Your task to perform on an android device: What is the news today? Image 0: 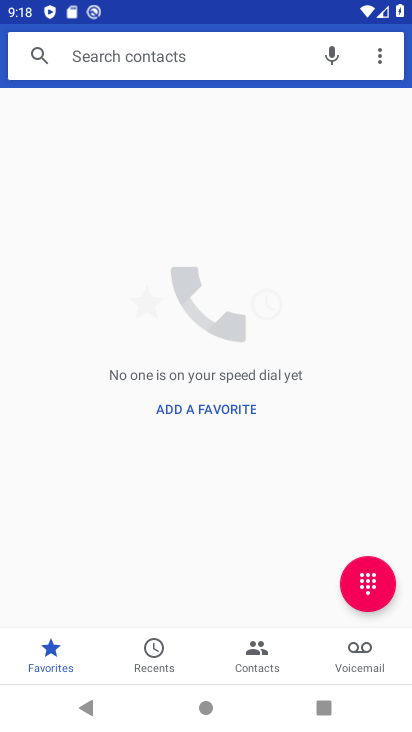
Step 0: press home button
Your task to perform on an android device: What is the news today? Image 1: 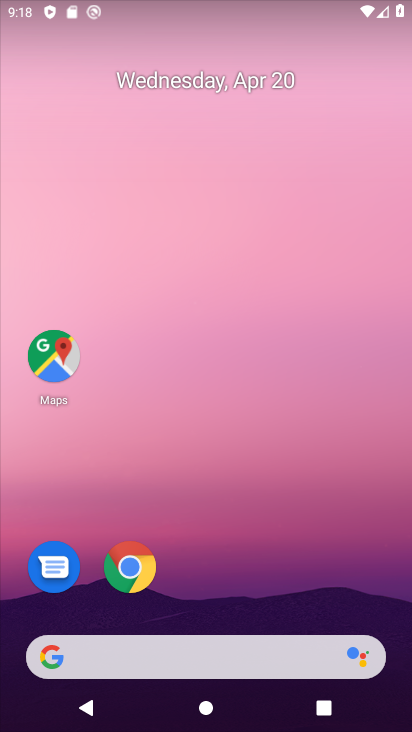
Step 1: drag from (226, 473) to (226, 237)
Your task to perform on an android device: What is the news today? Image 2: 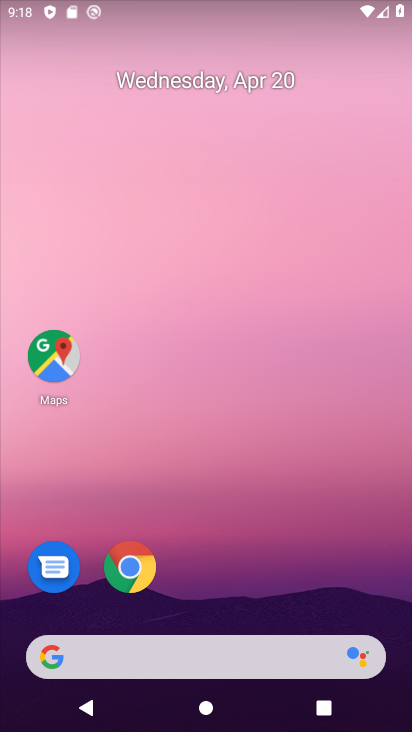
Step 2: drag from (255, 528) to (267, 254)
Your task to perform on an android device: What is the news today? Image 3: 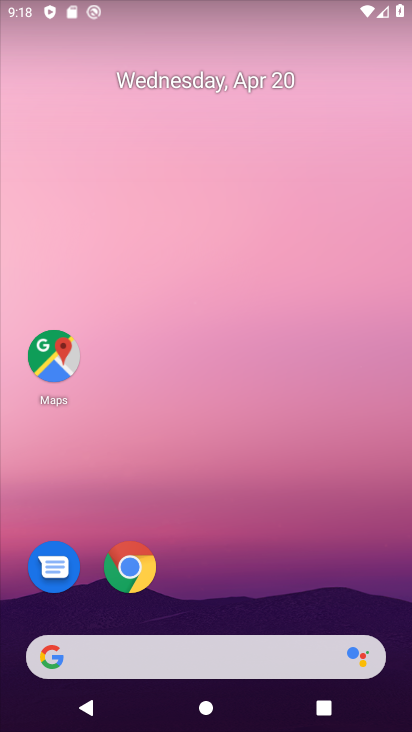
Step 3: drag from (218, 566) to (218, 257)
Your task to perform on an android device: What is the news today? Image 4: 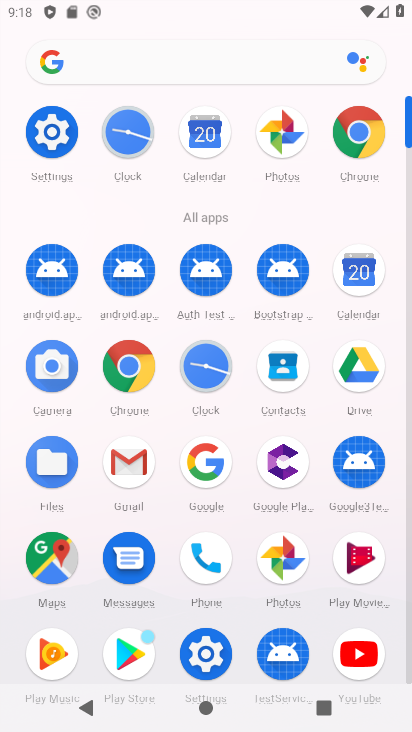
Step 4: click (132, 362)
Your task to perform on an android device: What is the news today? Image 5: 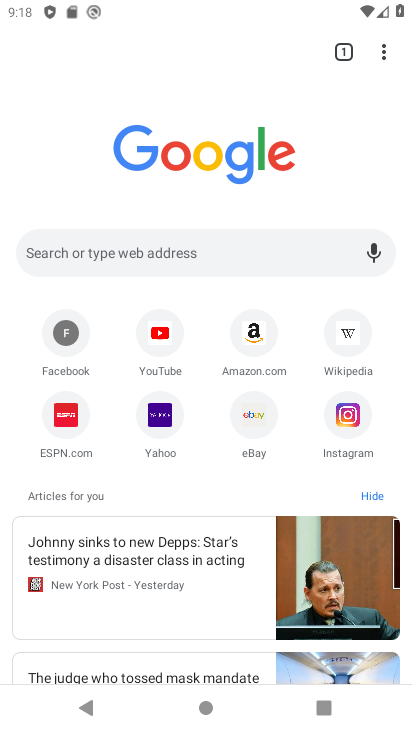
Step 5: click (177, 237)
Your task to perform on an android device: What is the news today? Image 6: 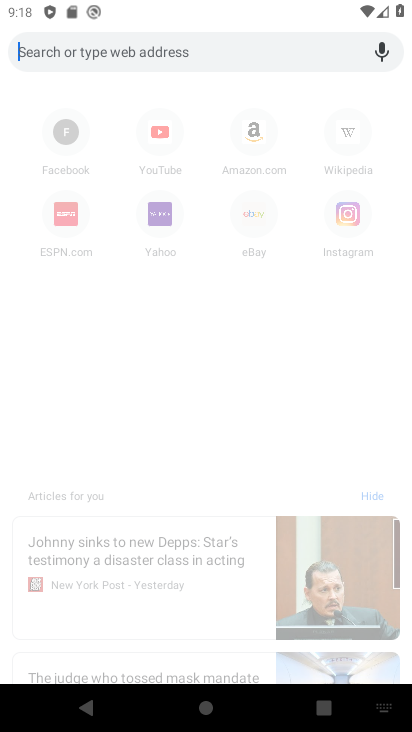
Step 6: type "What is the news today?"
Your task to perform on an android device: What is the news today? Image 7: 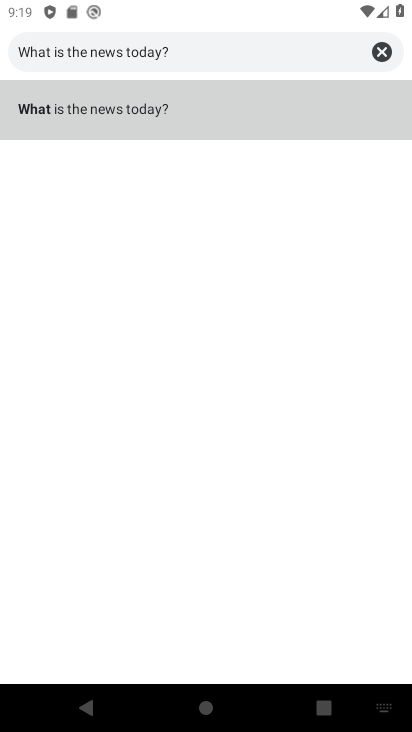
Step 7: click (170, 108)
Your task to perform on an android device: What is the news today? Image 8: 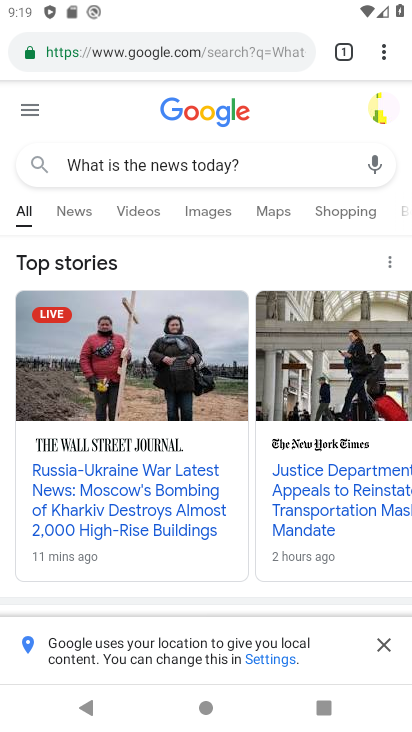
Step 8: task complete